Your task to perform on an android device: turn on the 12-hour format for clock Image 0: 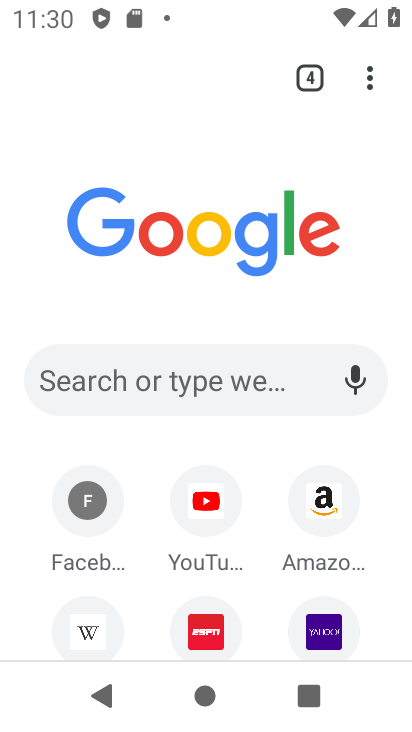
Step 0: press home button
Your task to perform on an android device: turn on the 12-hour format for clock Image 1: 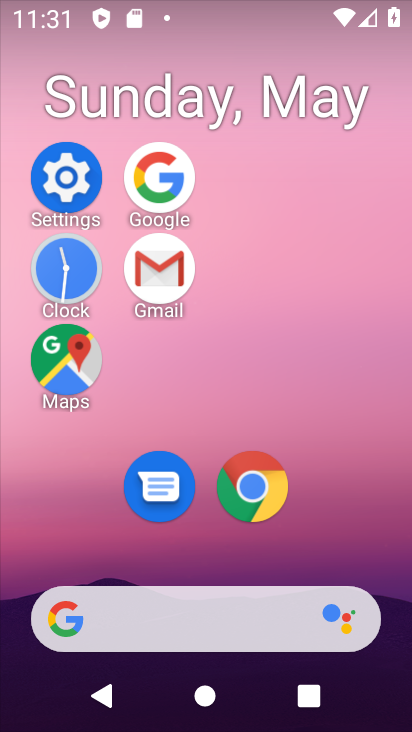
Step 1: click (81, 281)
Your task to perform on an android device: turn on the 12-hour format for clock Image 2: 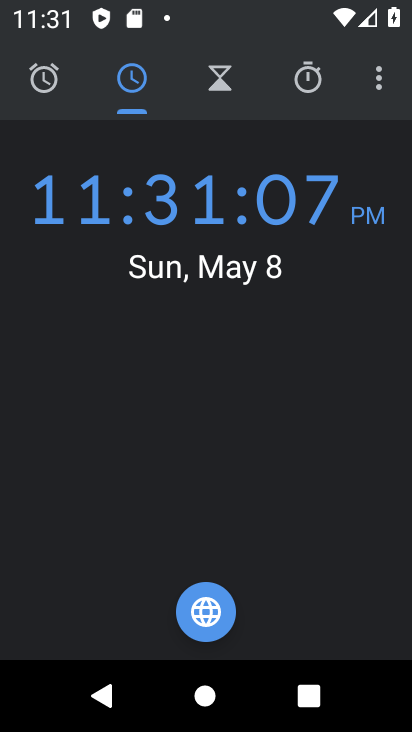
Step 2: click (386, 80)
Your task to perform on an android device: turn on the 12-hour format for clock Image 3: 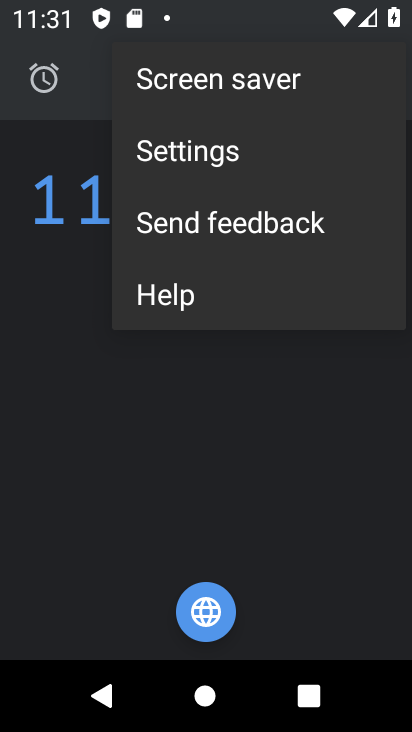
Step 3: click (311, 166)
Your task to perform on an android device: turn on the 12-hour format for clock Image 4: 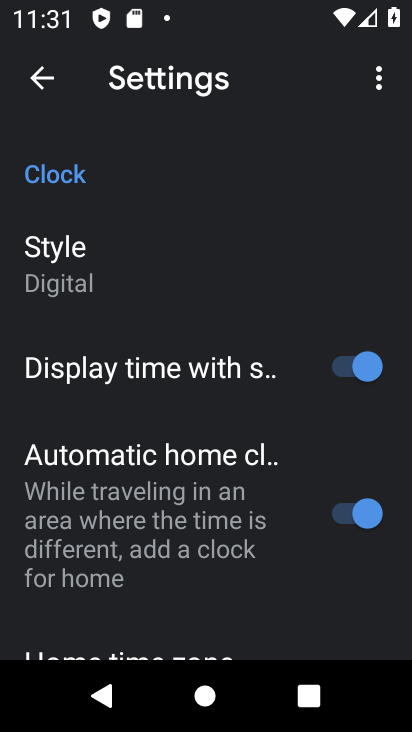
Step 4: drag from (217, 201) to (186, 414)
Your task to perform on an android device: turn on the 12-hour format for clock Image 5: 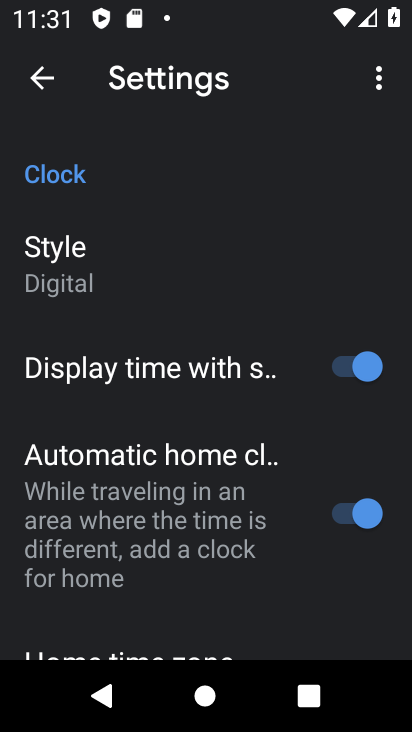
Step 5: drag from (244, 573) to (233, 140)
Your task to perform on an android device: turn on the 12-hour format for clock Image 6: 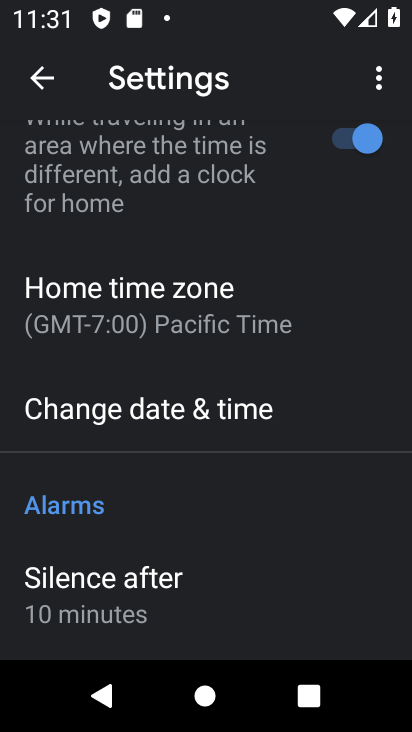
Step 6: drag from (226, 555) to (251, 162)
Your task to perform on an android device: turn on the 12-hour format for clock Image 7: 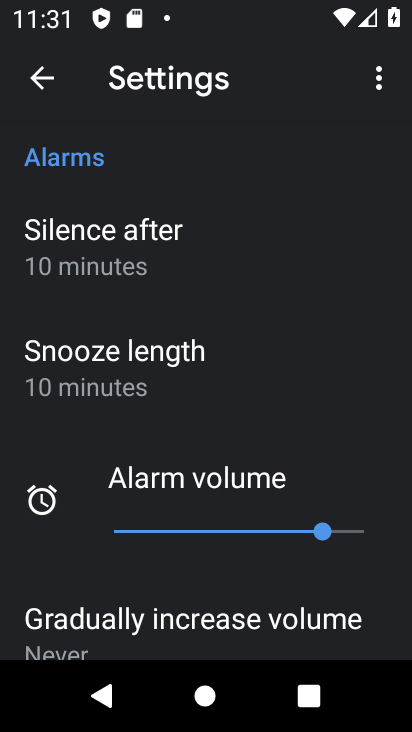
Step 7: drag from (250, 562) to (282, 174)
Your task to perform on an android device: turn on the 12-hour format for clock Image 8: 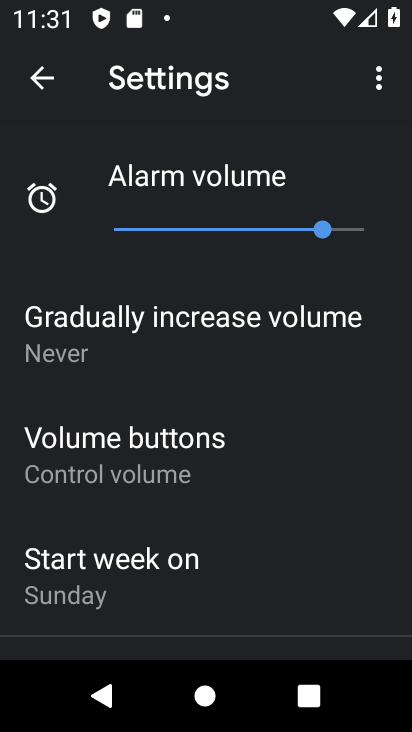
Step 8: drag from (242, 560) to (271, 236)
Your task to perform on an android device: turn on the 12-hour format for clock Image 9: 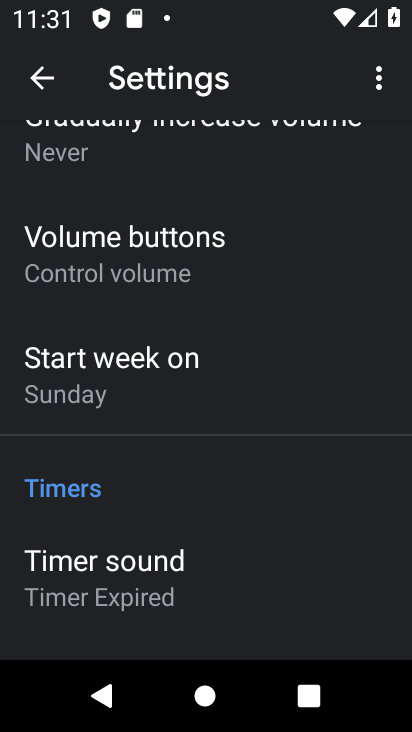
Step 9: drag from (286, 210) to (262, 528)
Your task to perform on an android device: turn on the 12-hour format for clock Image 10: 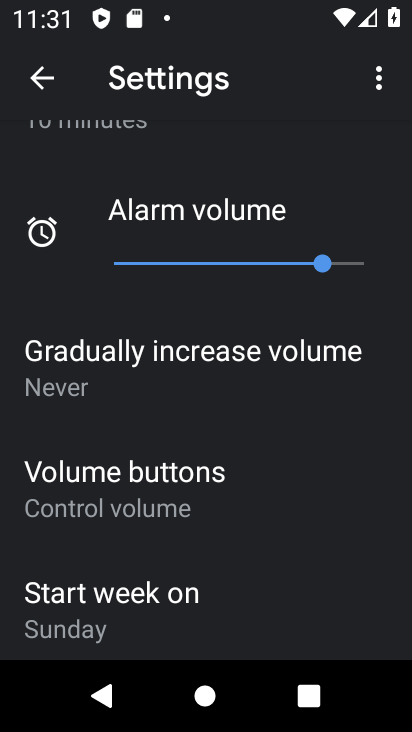
Step 10: drag from (293, 176) to (249, 564)
Your task to perform on an android device: turn on the 12-hour format for clock Image 11: 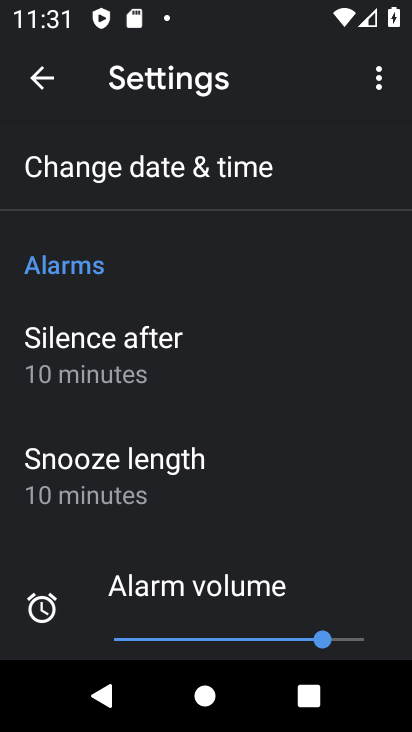
Step 11: click (248, 181)
Your task to perform on an android device: turn on the 12-hour format for clock Image 12: 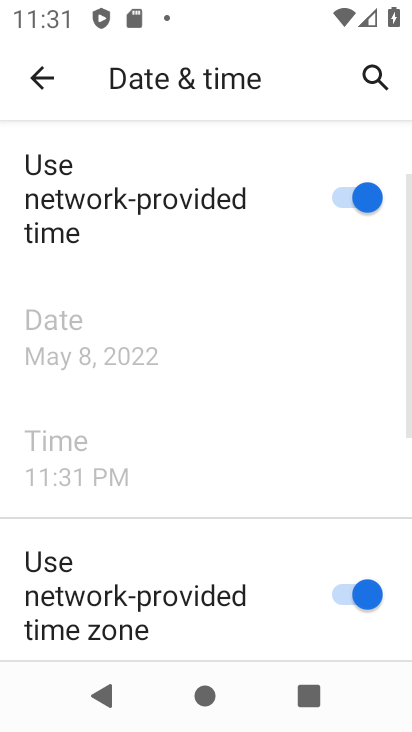
Step 12: drag from (211, 552) to (215, 188)
Your task to perform on an android device: turn on the 12-hour format for clock Image 13: 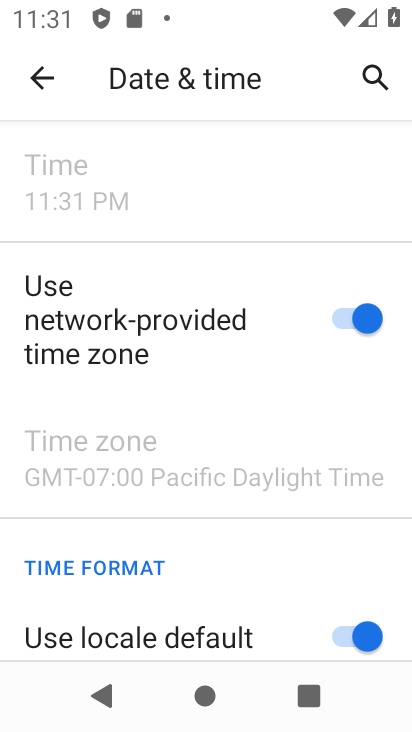
Step 13: drag from (209, 548) to (224, 219)
Your task to perform on an android device: turn on the 12-hour format for clock Image 14: 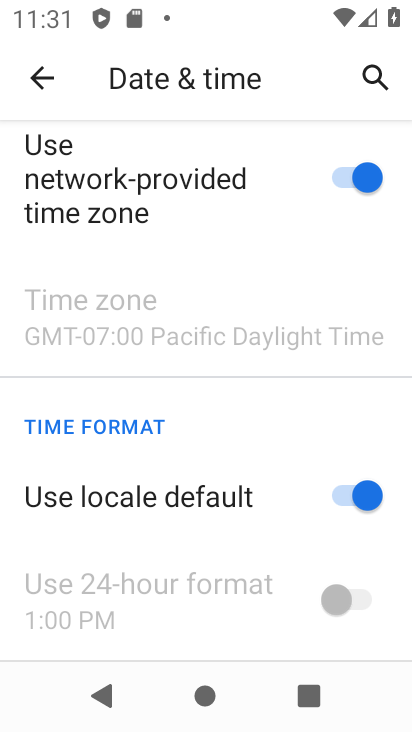
Step 14: click (371, 510)
Your task to perform on an android device: turn on the 12-hour format for clock Image 15: 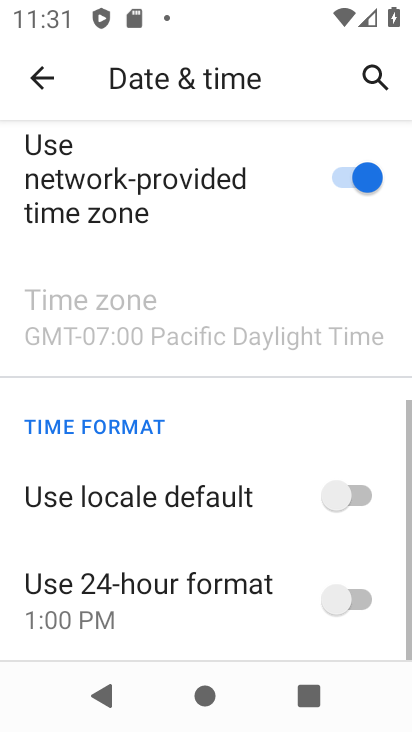
Step 15: click (371, 510)
Your task to perform on an android device: turn on the 12-hour format for clock Image 16: 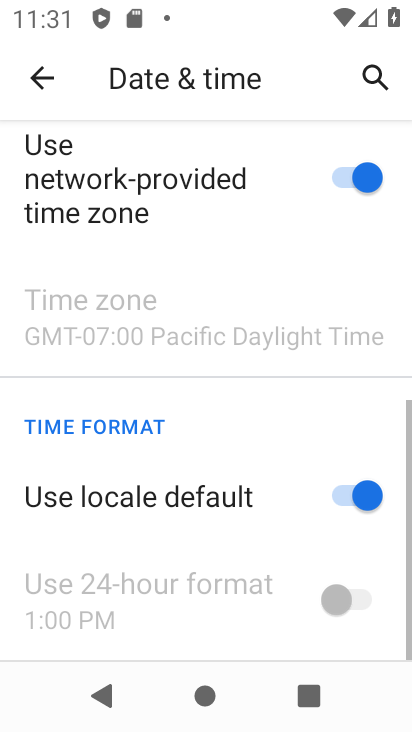
Step 16: task complete